Your task to perform on an android device: turn pop-ups off in chrome Image 0: 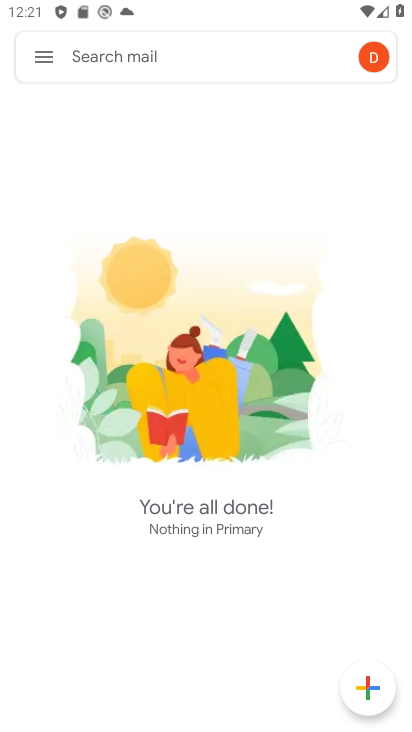
Step 0: task complete